Your task to perform on an android device: Add razer deathadder to the cart on bestbuy.com Image 0: 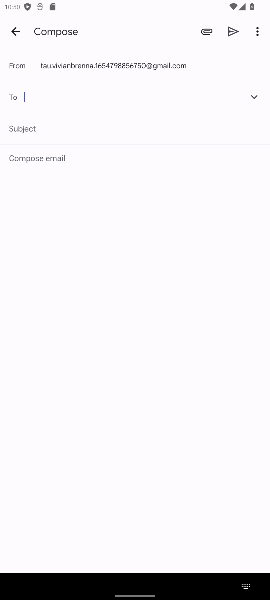
Step 0: press home button
Your task to perform on an android device: Add razer deathadder to the cart on bestbuy.com Image 1: 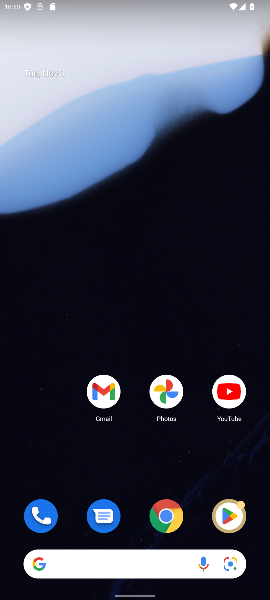
Step 1: click (168, 517)
Your task to perform on an android device: Add razer deathadder to the cart on bestbuy.com Image 2: 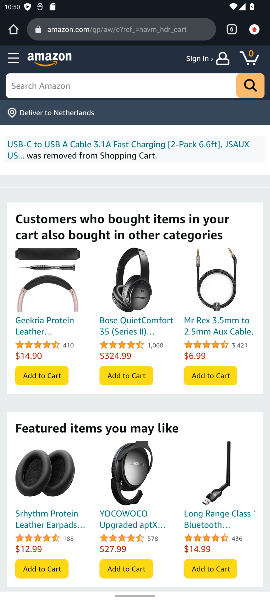
Step 2: click (234, 25)
Your task to perform on an android device: Add razer deathadder to the cart on bestbuy.com Image 3: 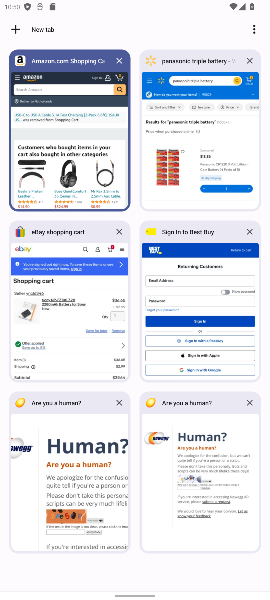
Step 3: click (200, 278)
Your task to perform on an android device: Add razer deathadder to the cart on bestbuy.com Image 4: 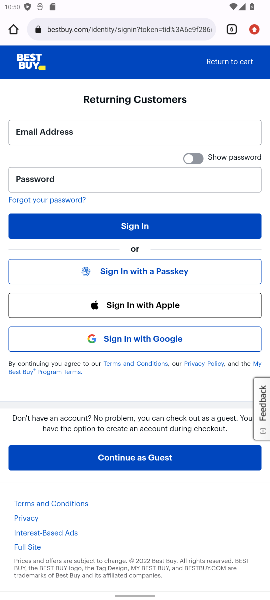
Step 4: click (215, 61)
Your task to perform on an android device: Add razer deathadder to the cart on bestbuy.com Image 5: 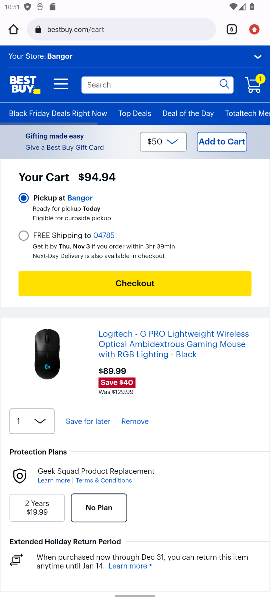
Step 5: click (143, 84)
Your task to perform on an android device: Add razer deathadder to the cart on bestbuy.com Image 6: 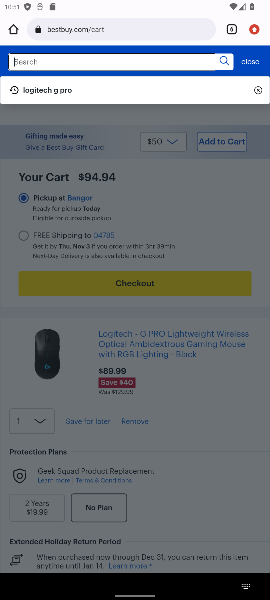
Step 6: type "razer deathadder"
Your task to perform on an android device: Add razer deathadder to the cart on bestbuy.com Image 7: 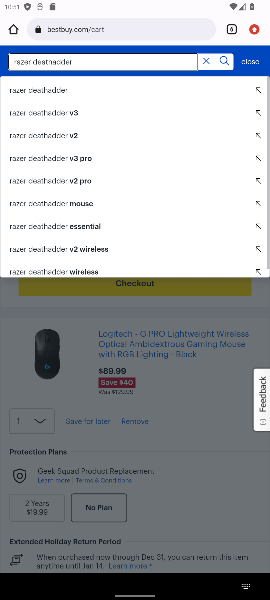
Step 7: click (23, 87)
Your task to perform on an android device: Add razer deathadder to the cart on bestbuy.com Image 8: 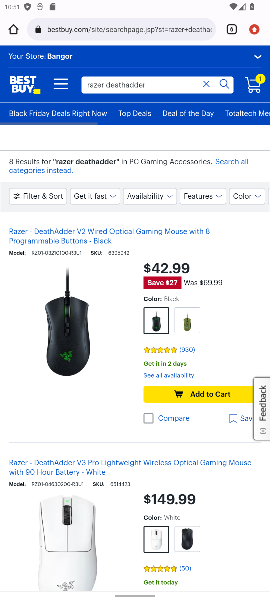
Step 8: click (199, 395)
Your task to perform on an android device: Add razer deathadder to the cart on bestbuy.com Image 9: 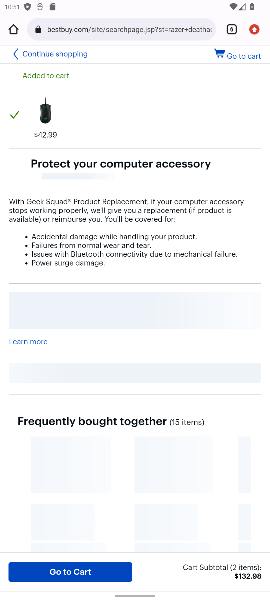
Step 9: task complete